Your task to perform on an android device: change notifications settings Image 0: 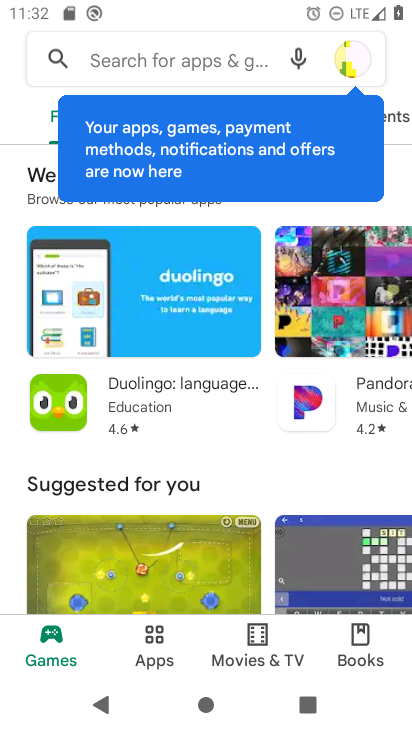
Step 0: press home button
Your task to perform on an android device: change notifications settings Image 1: 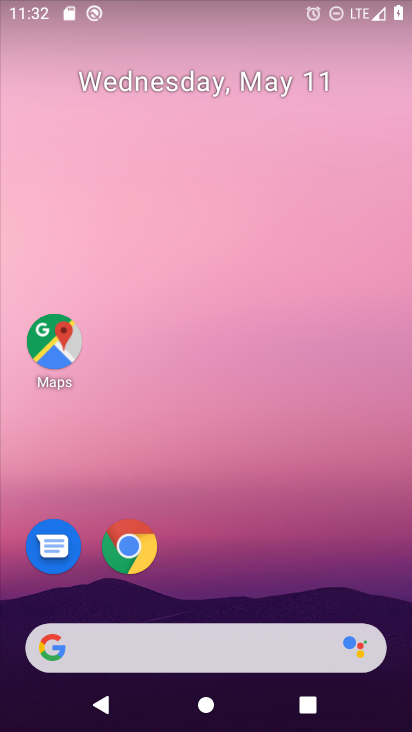
Step 1: drag from (340, 548) to (107, 155)
Your task to perform on an android device: change notifications settings Image 2: 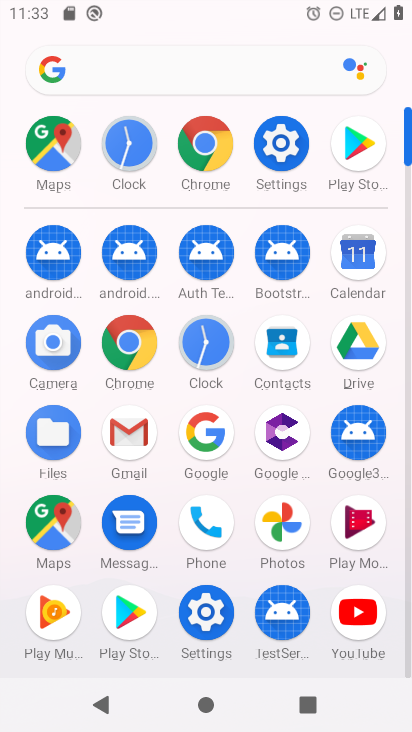
Step 2: click (208, 599)
Your task to perform on an android device: change notifications settings Image 3: 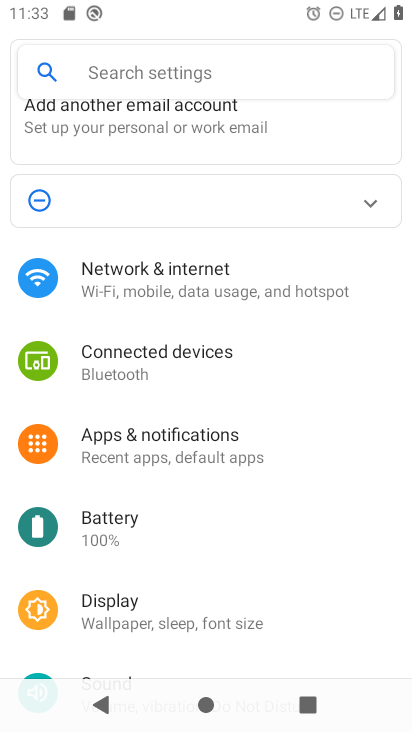
Step 3: click (256, 476)
Your task to perform on an android device: change notifications settings Image 4: 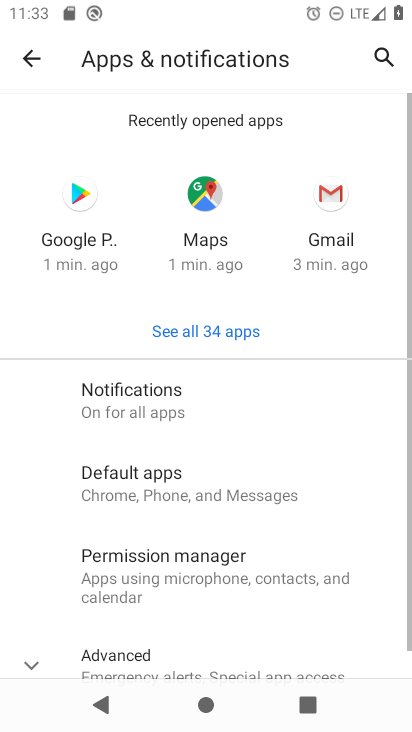
Step 4: click (195, 411)
Your task to perform on an android device: change notifications settings Image 5: 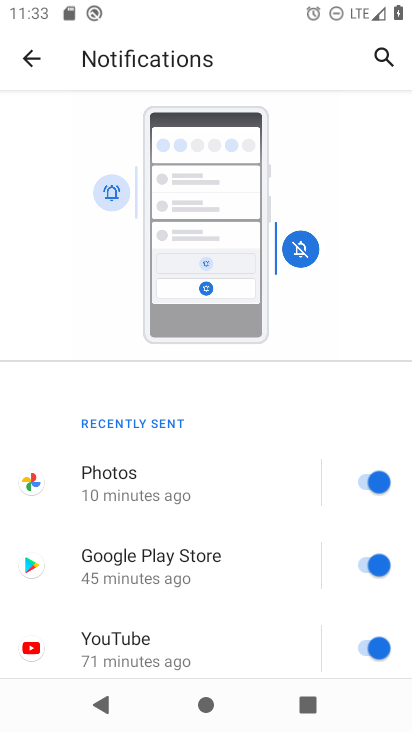
Step 5: task complete